Your task to perform on an android device: Open Youtube and go to "Your channel" Image 0: 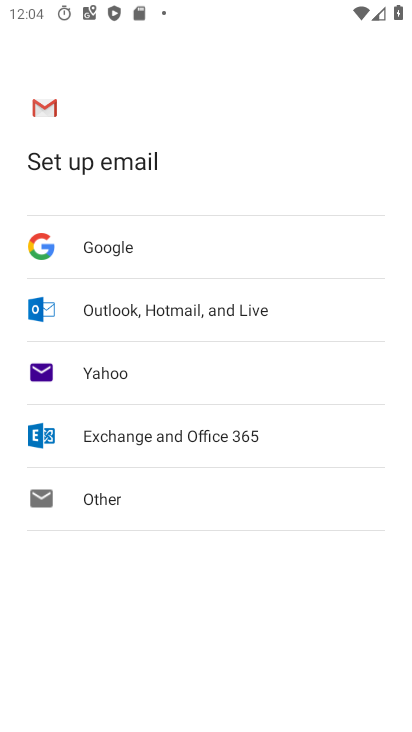
Step 0: press back button
Your task to perform on an android device: Open Youtube and go to "Your channel" Image 1: 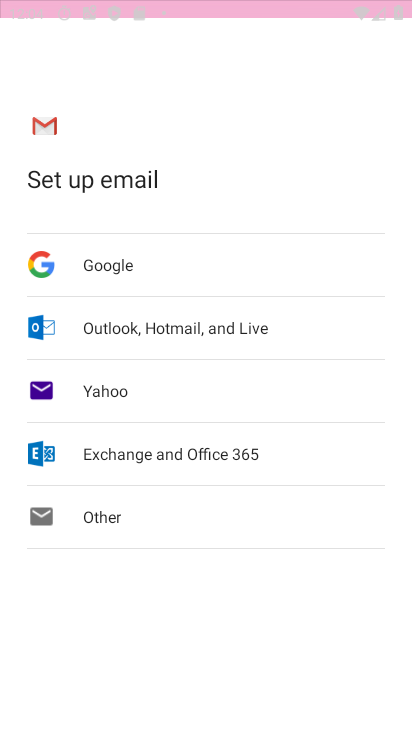
Step 1: press home button
Your task to perform on an android device: Open Youtube and go to "Your channel" Image 2: 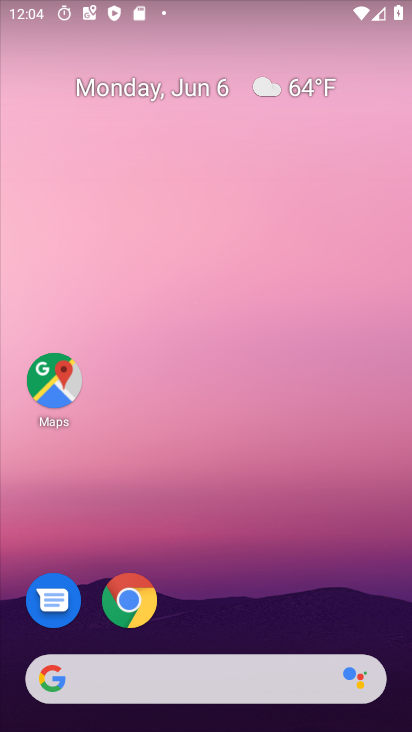
Step 2: drag from (255, 717) to (177, 134)
Your task to perform on an android device: Open Youtube and go to "Your channel" Image 3: 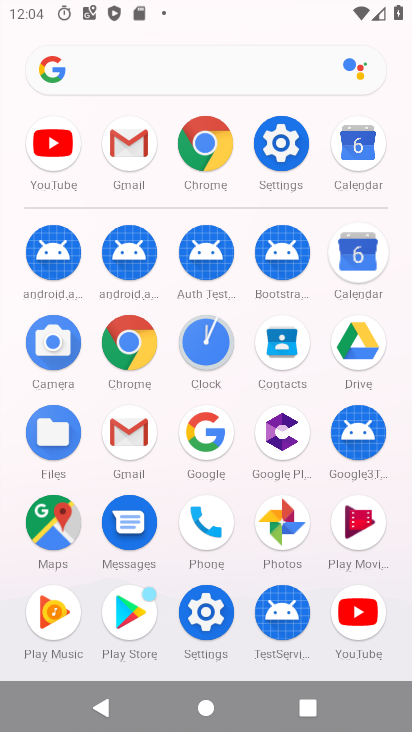
Step 3: click (353, 607)
Your task to perform on an android device: Open Youtube and go to "Your channel" Image 4: 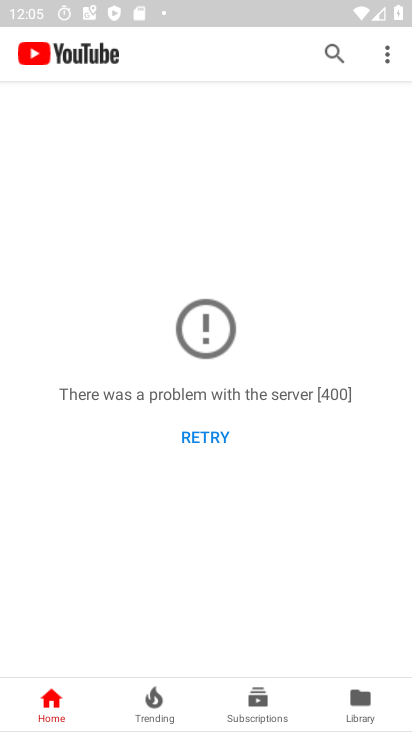
Step 4: drag from (304, 540) to (183, 165)
Your task to perform on an android device: Open Youtube and go to "Your channel" Image 5: 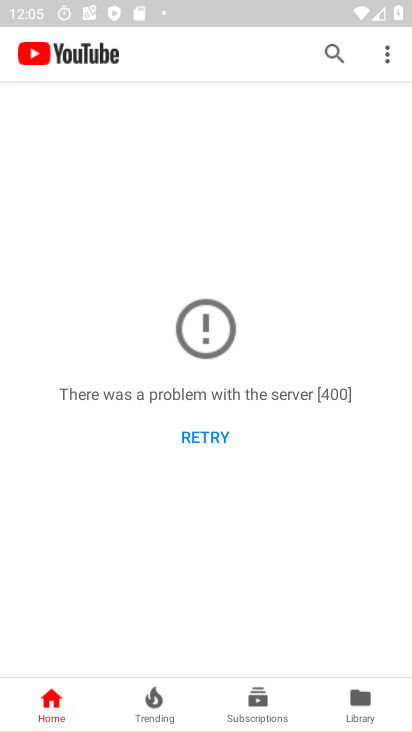
Step 5: drag from (218, 552) to (174, 278)
Your task to perform on an android device: Open Youtube and go to "Your channel" Image 6: 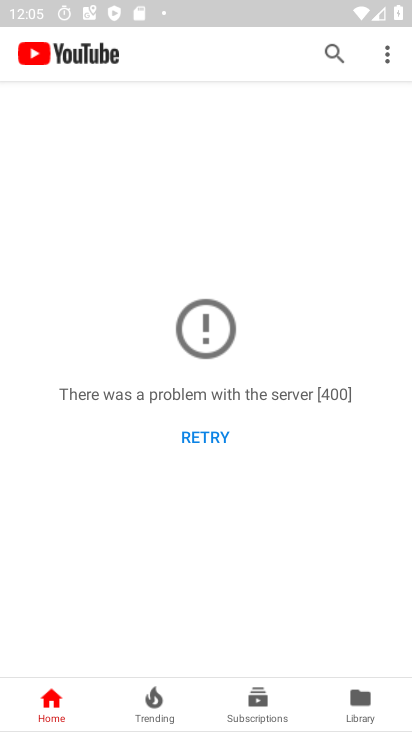
Step 6: drag from (344, 533) to (348, 398)
Your task to perform on an android device: Open Youtube and go to "Your channel" Image 7: 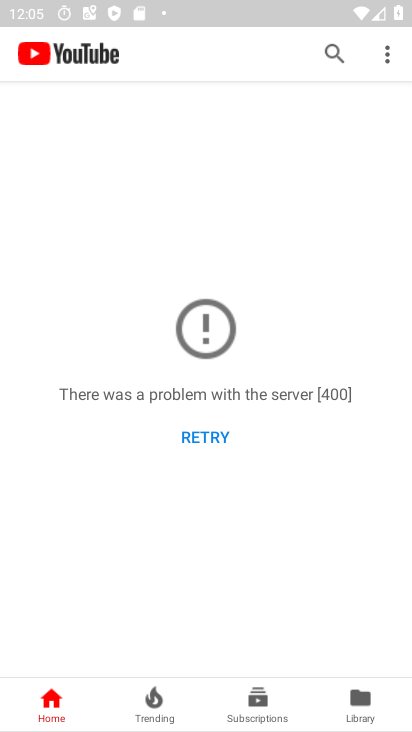
Step 7: click (411, 649)
Your task to perform on an android device: Open Youtube and go to "Your channel" Image 8: 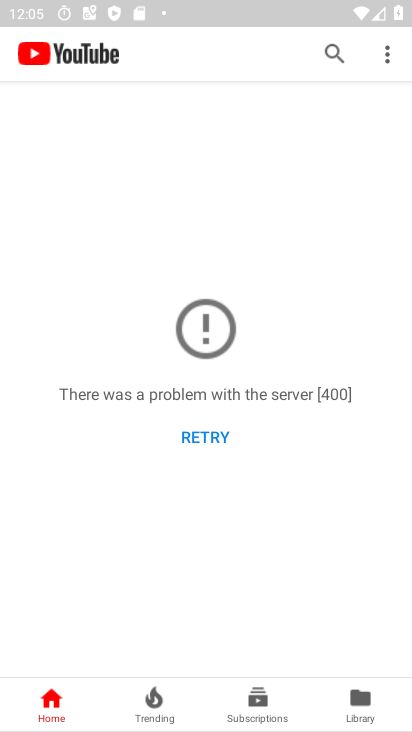
Step 8: task complete